Your task to perform on an android device: Search for Italian restaurants on Maps Image 0: 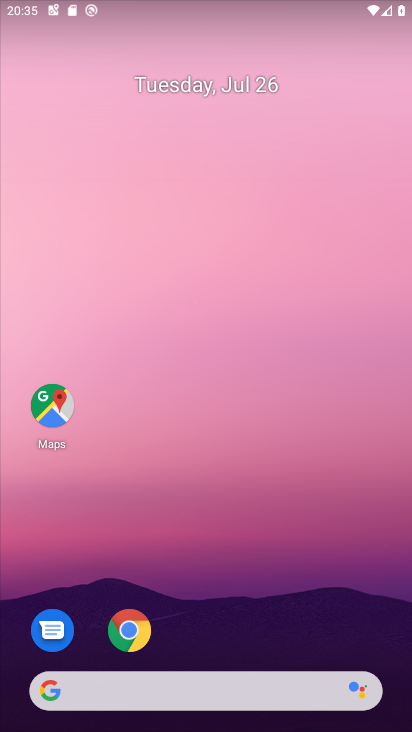
Step 0: click (37, 413)
Your task to perform on an android device: Search for Italian restaurants on Maps Image 1: 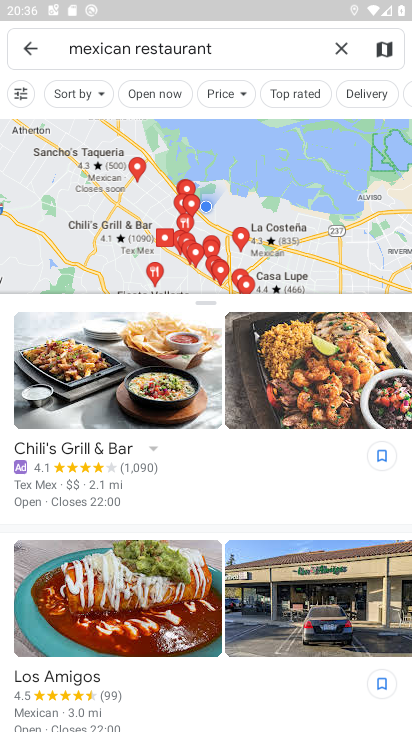
Step 1: click (343, 37)
Your task to perform on an android device: Search for Italian restaurants on Maps Image 2: 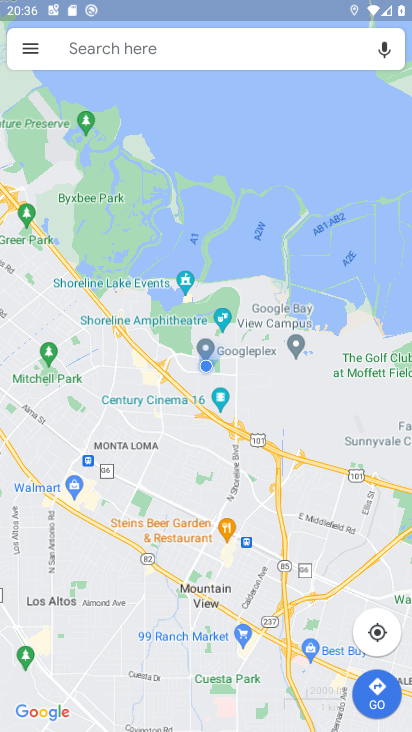
Step 2: click (107, 43)
Your task to perform on an android device: Search for Italian restaurants on Maps Image 3: 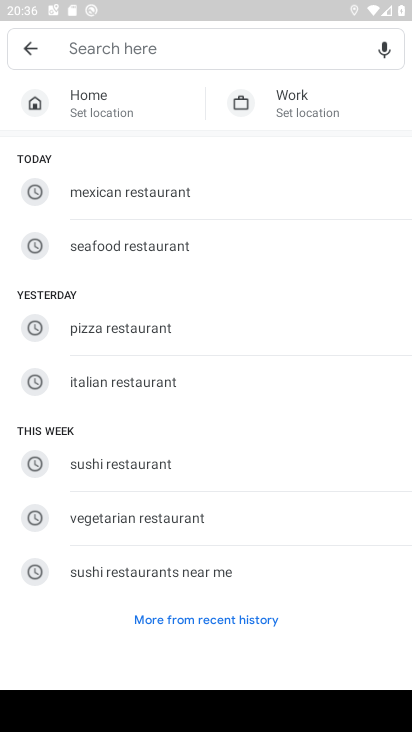
Step 3: type "Italian restaurants"
Your task to perform on an android device: Search for Italian restaurants on Maps Image 4: 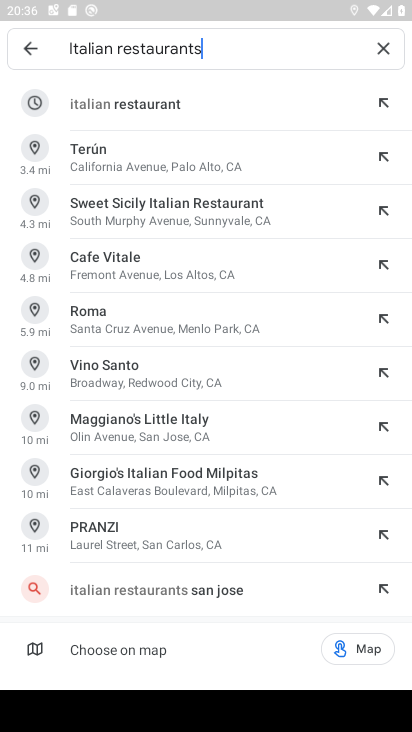
Step 4: click (141, 98)
Your task to perform on an android device: Search for Italian restaurants on Maps Image 5: 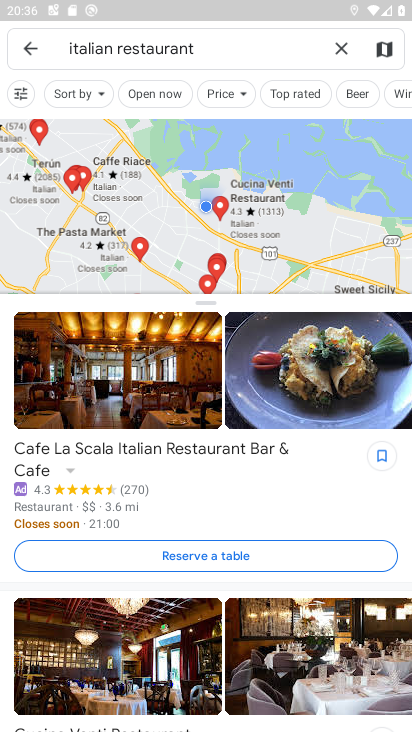
Step 5: task complete